Your task to perform on an android device: uninstall "Instagram" Image 0: 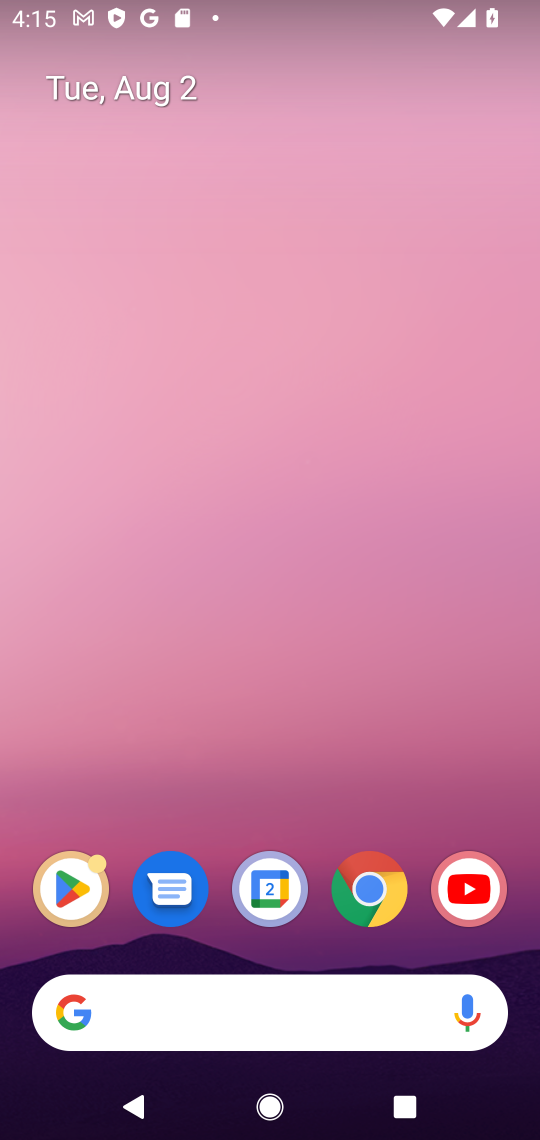
Step 0: drag from (453, 823) to (345, 204)
Your task to perform on an android device: uninstall "Instagram" Image 1: 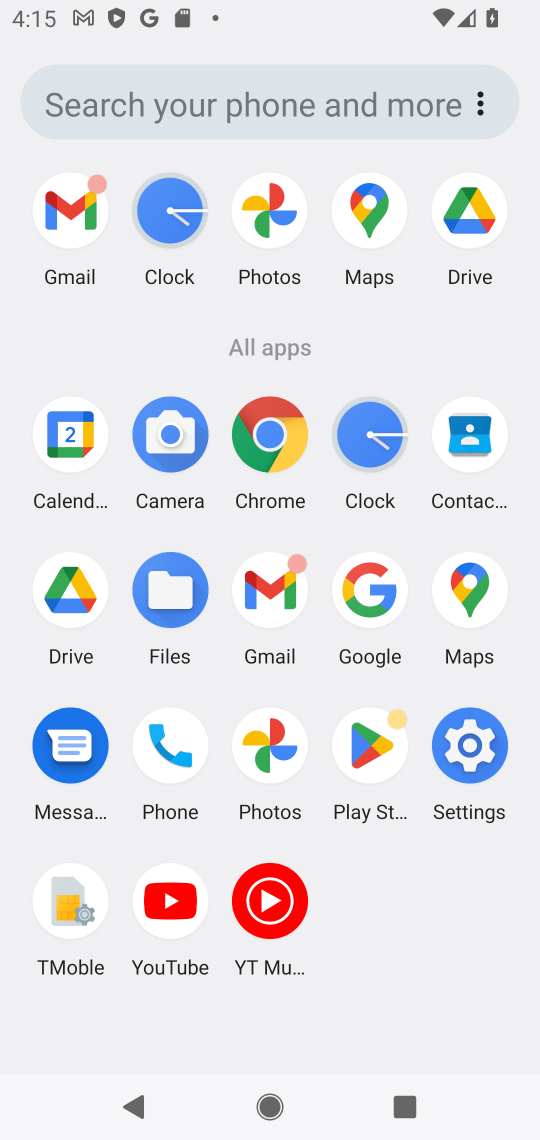
Step 1: click (384, 736)
Your task to perform on an android device: uninstall "Instagram" Image 2: 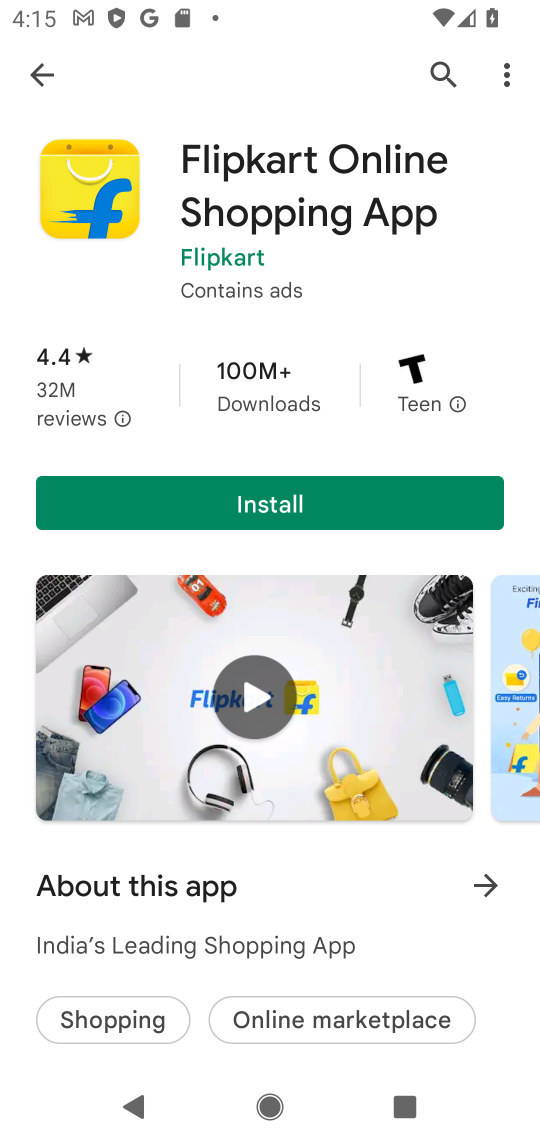
Step 2: click (420, 68)
Your task to perform on an android device: uninstall "Instagram" Image 3: 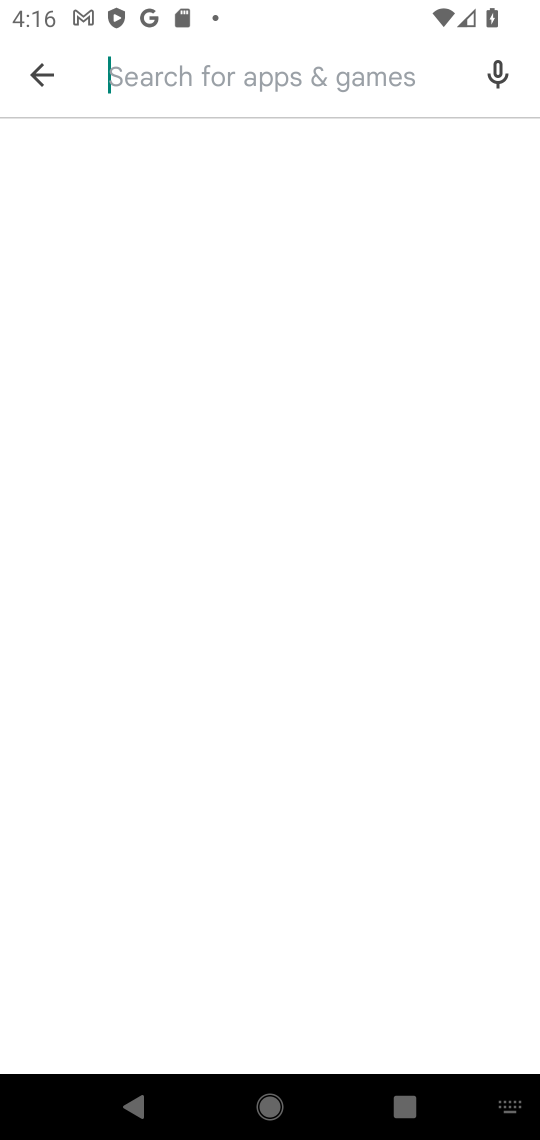
Step 3: type "instagram"
Your task to perform on an android device: uninstall "Instagram" Image 4: 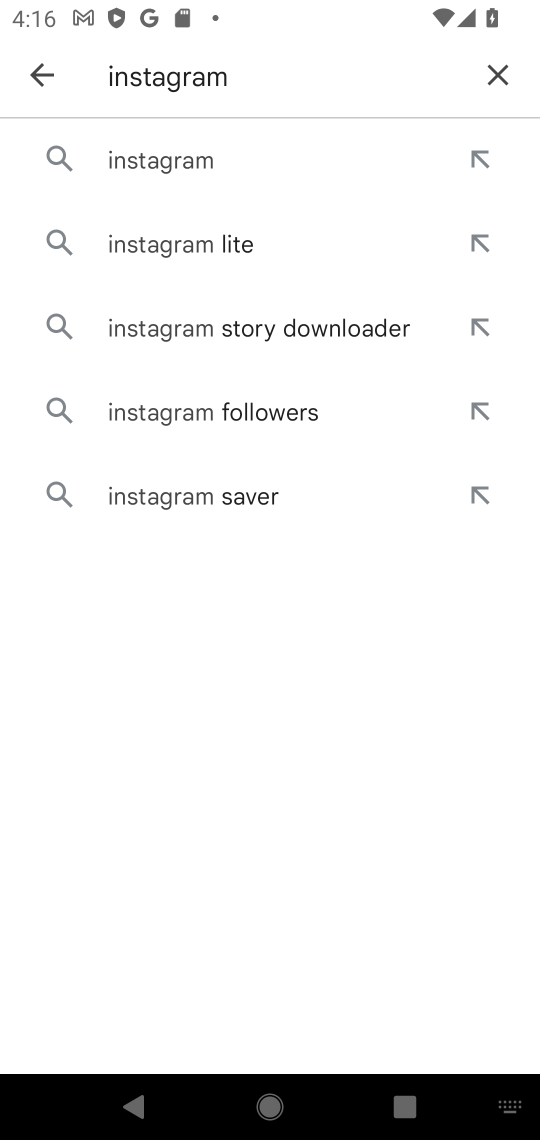
Step 4: click (299, 156)
Your task to perform on an android device: uninstall "Instagram" Image 5: 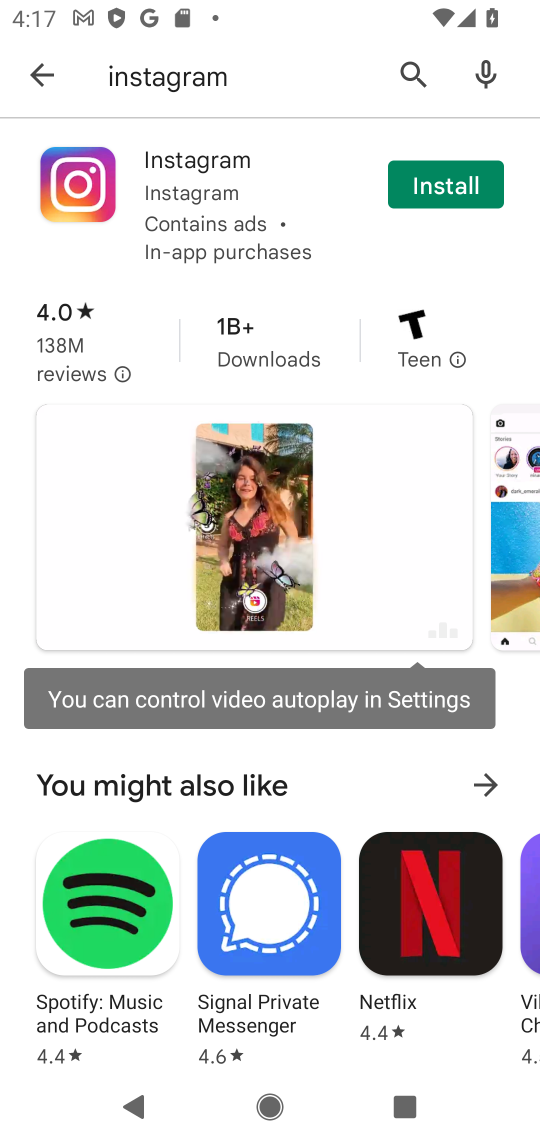
Step 5: task complete